Your task to perform on an android device: turn notification dots on Image 0: 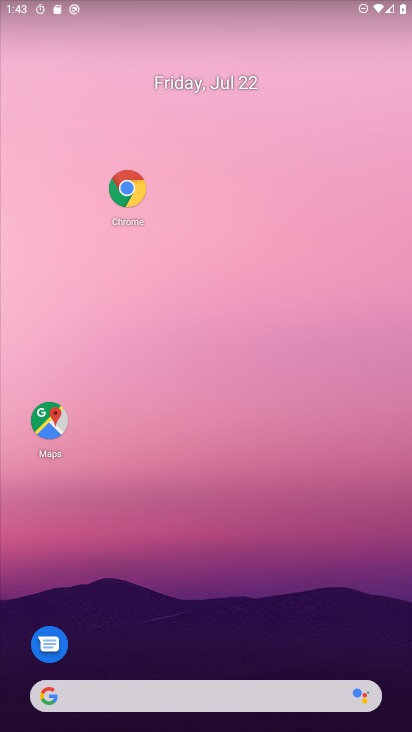
Step 0: click (248, 142)
Your task to perform on an android device: turn notification dots on Image 1: 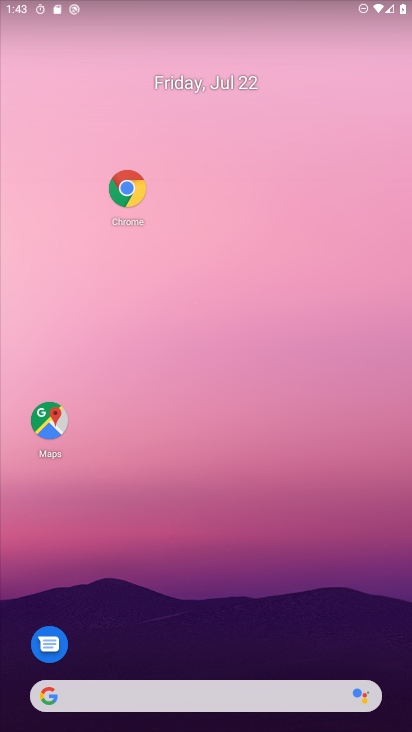
Step 1: drag from (250, 638) to (295, 92)
Your task to perform on an android device: turn notification dots on Image 2: 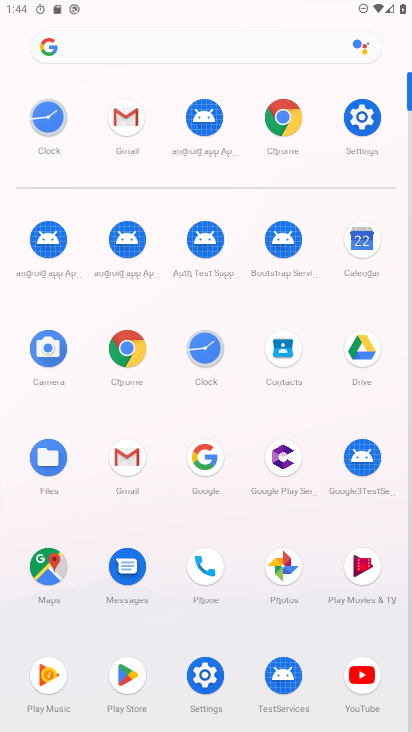
Step 2: click (368, 113)
Your task to perform on an android device: turn notification dots on Image 3: 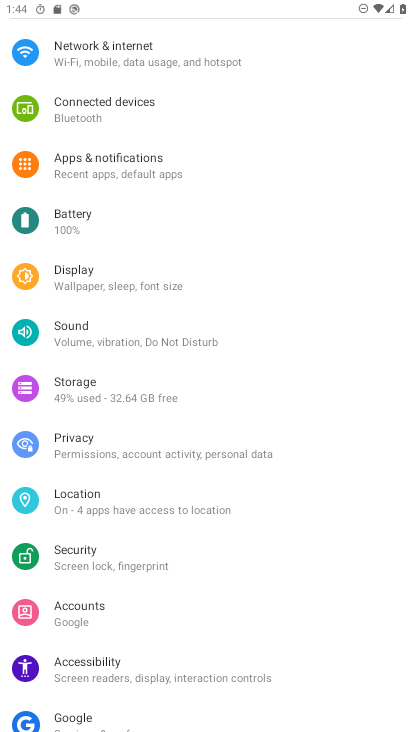
Step 3: click (188, 170)
Your task to perform on an android device: turn notification dots on Image 4: 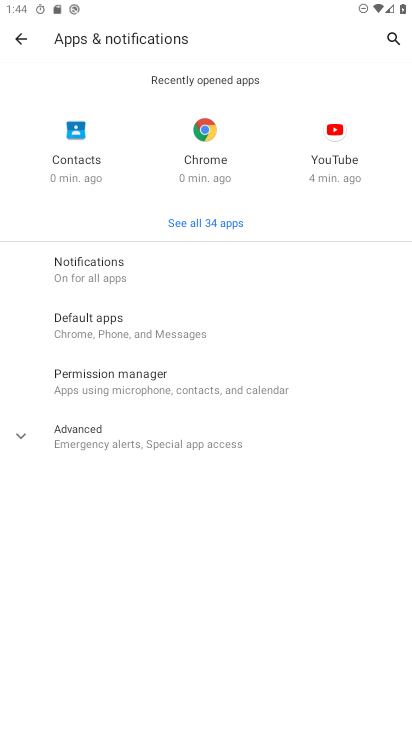
Step 4: click (119, 264)
Your task to perform on an android device: turn notification dots on Image 5: 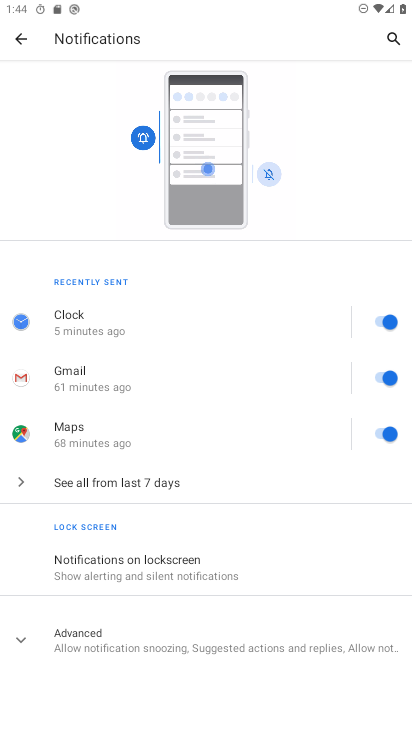
Step 5: click (102, 623)
Your task to perform on an android device: turn notification dots on Image 6: 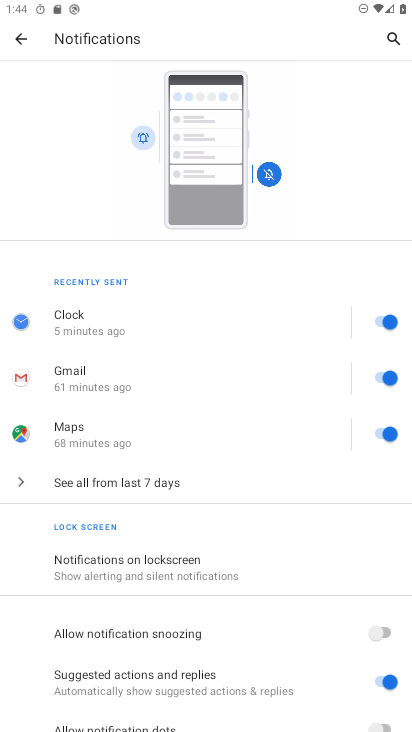
Step 6: drag from (292, 694) to (294, 204)
Your task to perform on an android device: turn notification dots on Image 7: 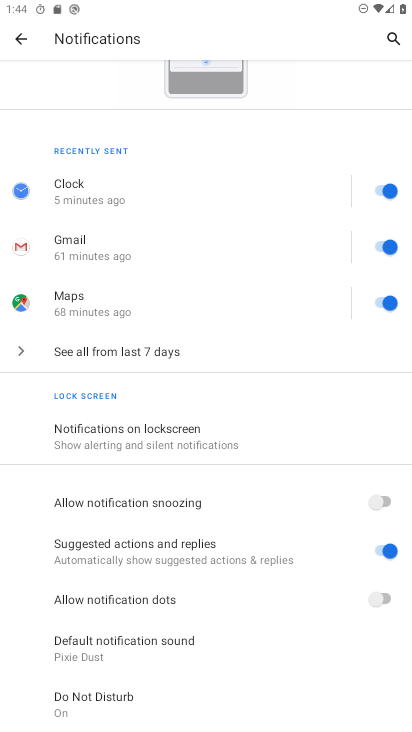
Step 7: click (381, 601)
Your task to perform on an android device: turn notification dots on Image 8: 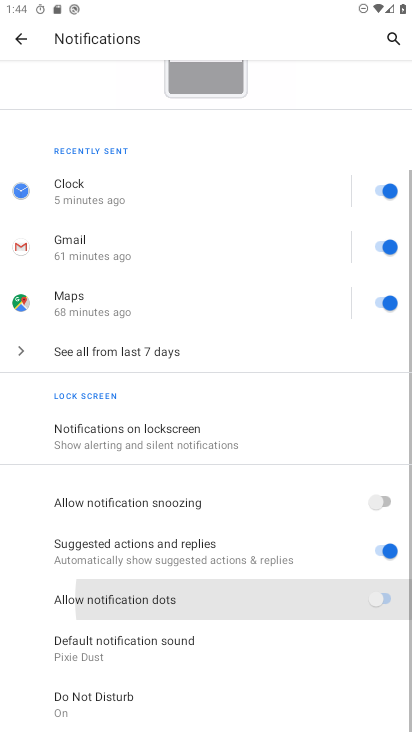
Step 8: click (381, 601)
Your task to perform on an android device: turn notification dots on Image 9: 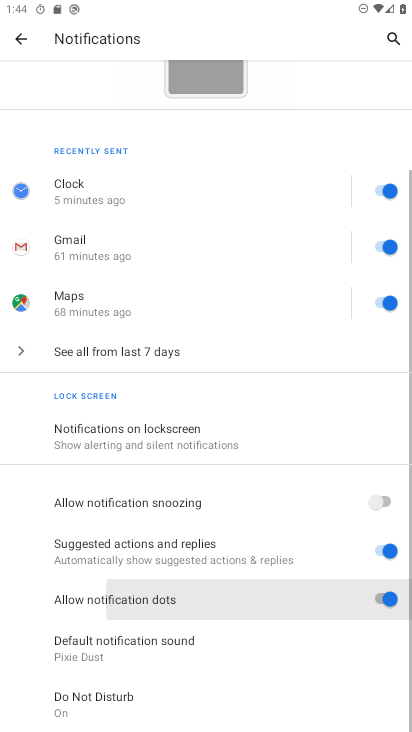
Step 9: click (381, 601)
Your task to perform on an android device: turn notification dots on Image 10: 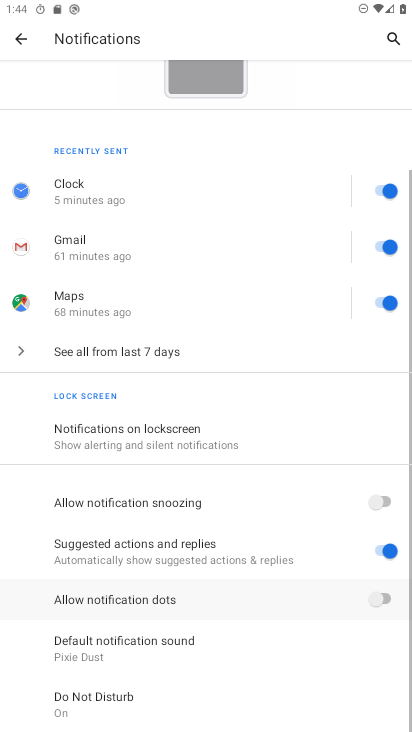
Step 10: click (381, 601)
Your task to perform on an android device: turn notification dots on Image 11: 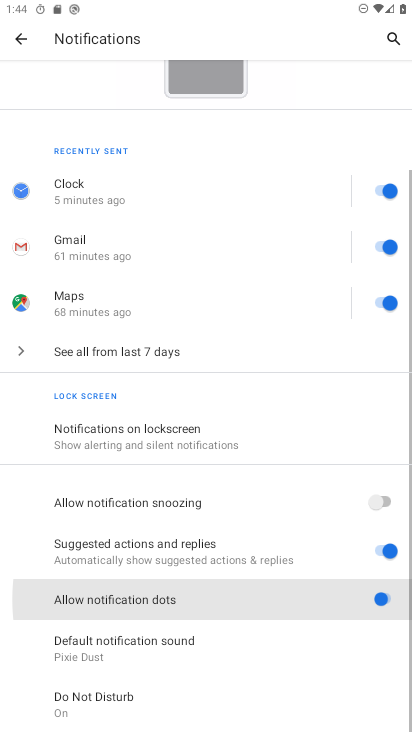
Step 11: click (381, 601)
Your task to perform on an android device: turn notification dots on Image 12: 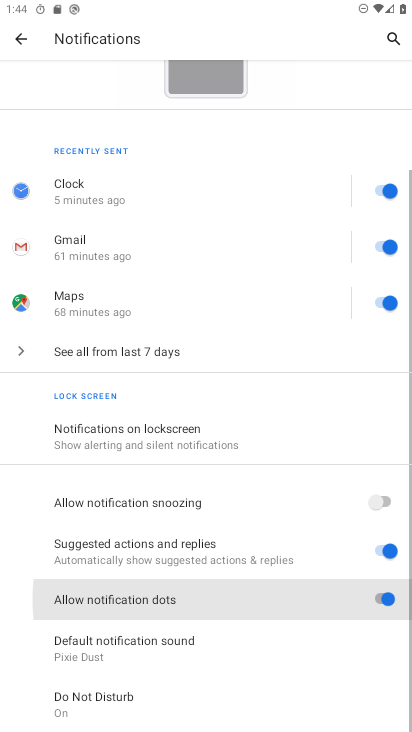
Step 12: click (381, 601)
Your task to perform on an android device: turn notification dots on Image 13: 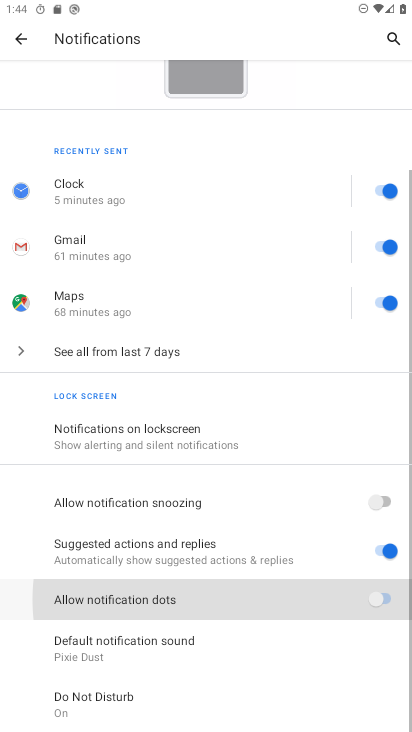
Step 13: click (381, 601)
Your task to perform on an android device: turn notification dots on Image 14: 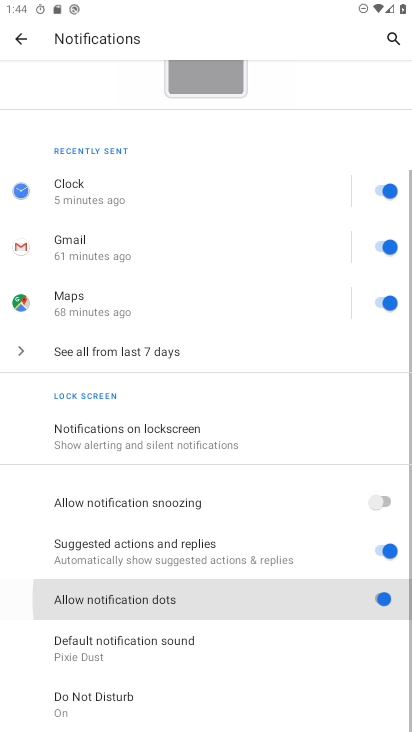
Step 14: click (381, 601)
Your task to perform on an android device: turn notification dots on Image 15: 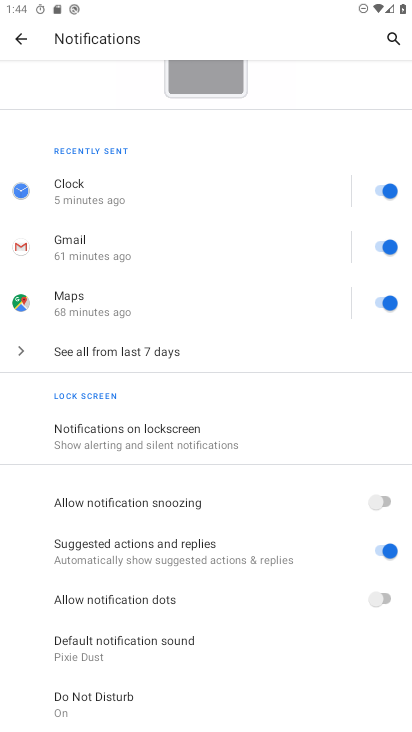
Step 15: task complete